Your task to perform on an android device: Open accessibility settings Image 0: 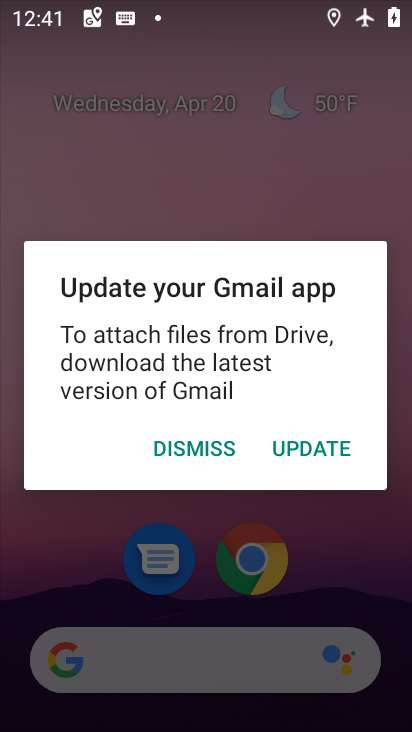
Step 0: press home button
Your task to perform on an android device: Open accessibility settings Image 1: 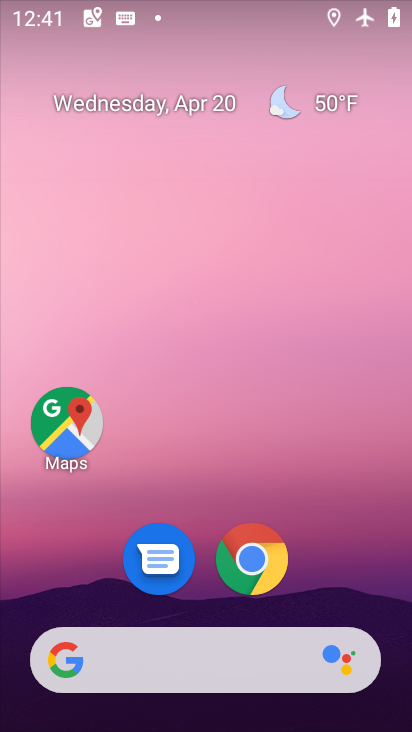
Step 1: drag from (346, 588) to (285, 106)
Your task to perform on an android device: Open accessibility settings Image 2: 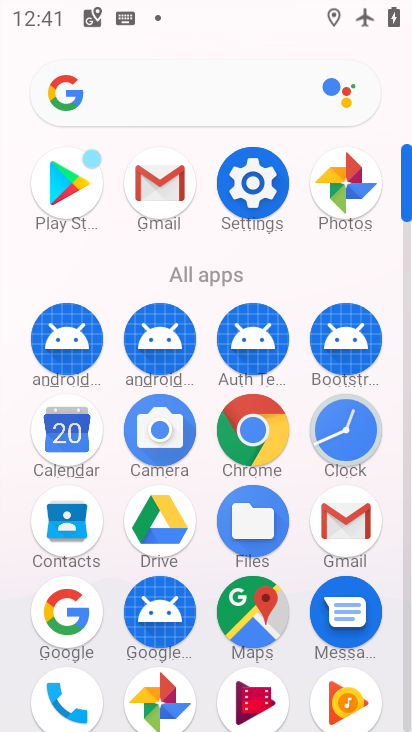
Step 2: click (254, 191)
Your task to perform on an android device: Open accessibility settings Image 3: 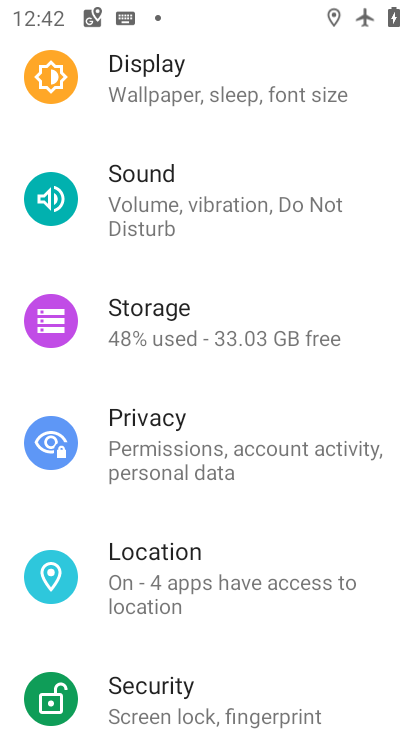
Step 3: drag from (215, 686) to (248, 181)
Your task to perform on an android device: Open accessibility settings Image 4: 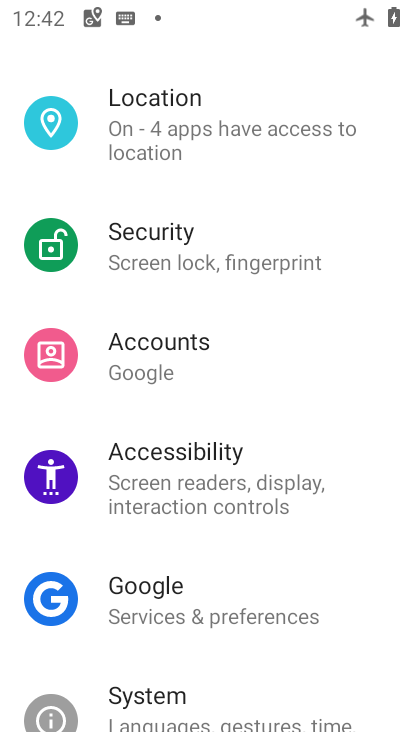
Step 4: click (212, 487)
Your task to perform on an android device: Open accessibility settings Image 5: 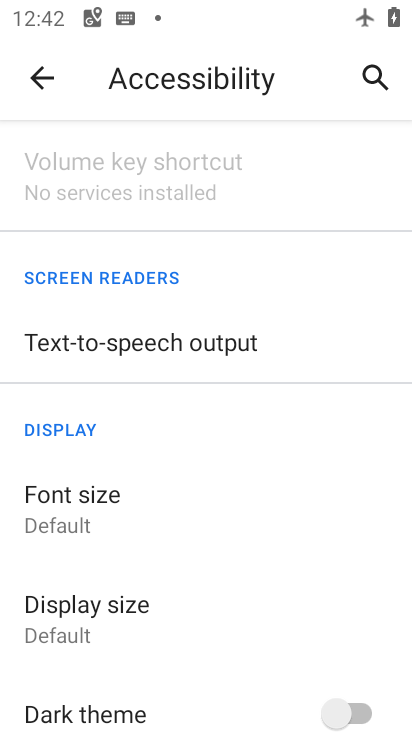
Step 5: task complete